Your task to perform on an android device: see creations saved in the google photos Image 0: 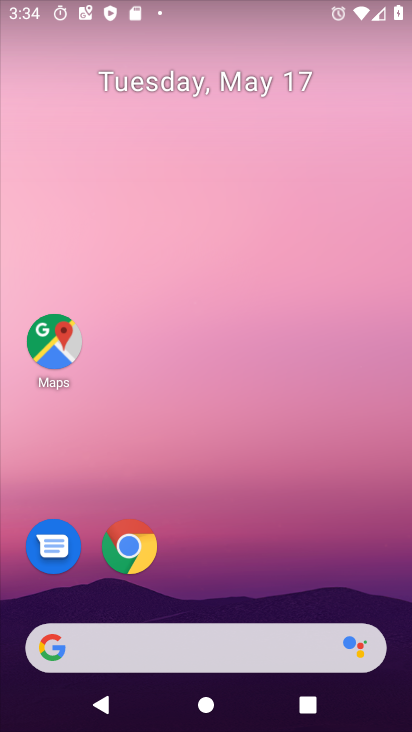
Step 0: drag from (214, 538) to (209, 322)
Your task to perform on an android device: see creations saved in the google photos Image 1: 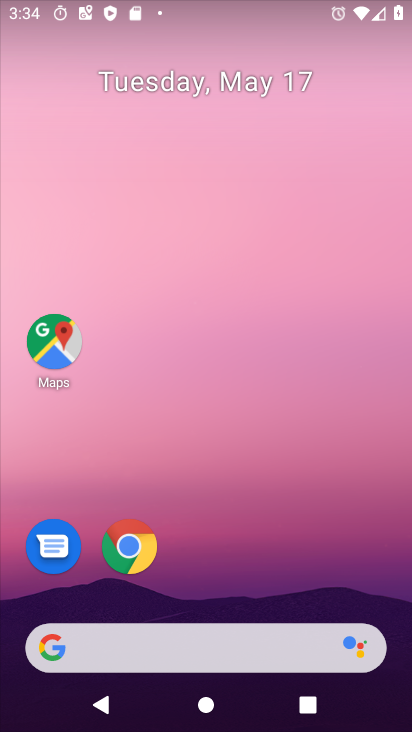
Step 1: drag from (199, 626) to (184, 260)
Your task to perform on an android device: see creations saved in the google photos Image 2: 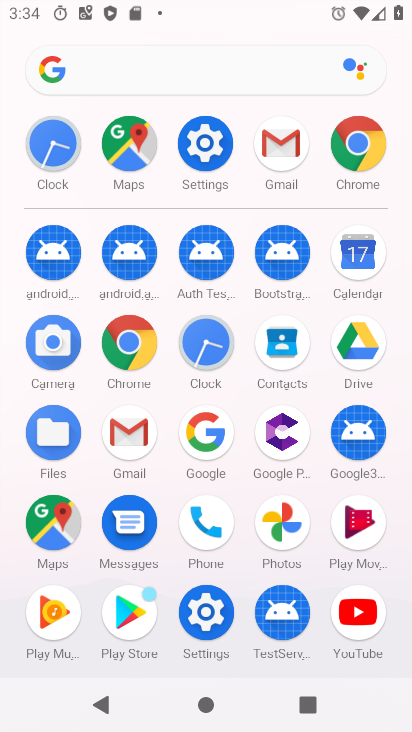
Step 2: click (297, 536)
Your task to perform on an android device: see creations saved in the google photos Image 3: 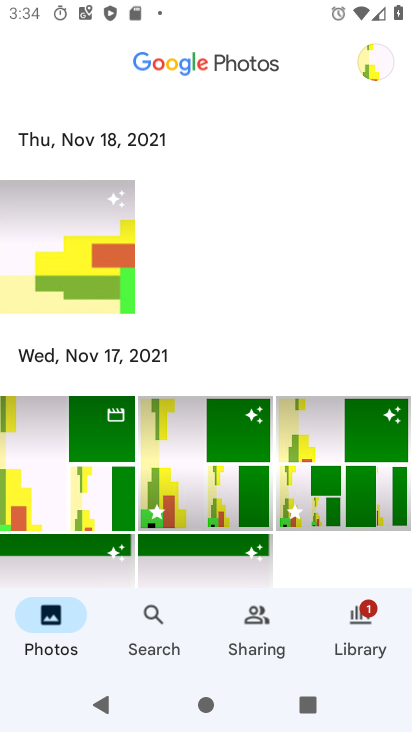
Step 3: click (346, 617)
Your task to perform on an android device: see creations saved in the google photos Image 4: 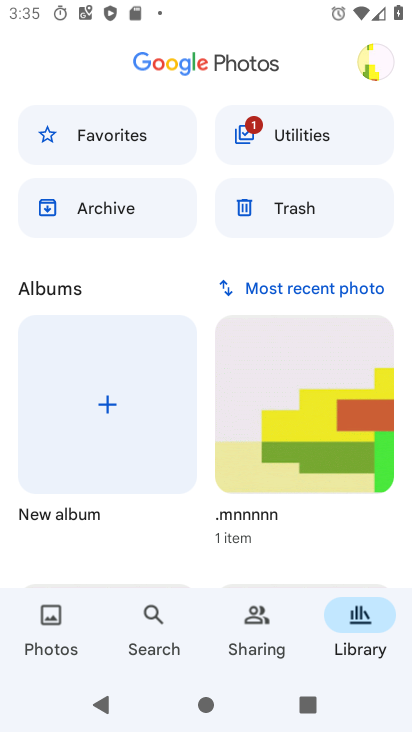
Step 4: task complete